Your task to perform on an android device: Clear all items from cart on walmart.com. Search for usb-c on walmart.com, select the first entry, add it to the cart, then select checkout. Image 0: 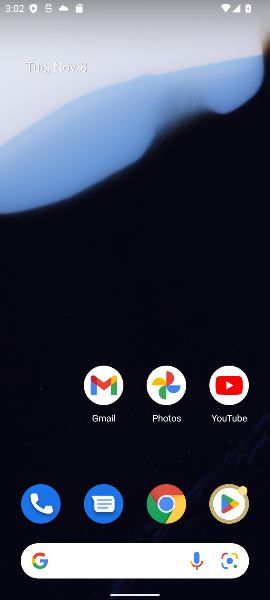
Step 0: drag from (137, 463) to (169, 68)
Your task to perform on an android device: Clear all items from cart on walmart.com. Search for usb-c on walmart.com, select the first entry, add it to the cart, then select checkout. Image 1: 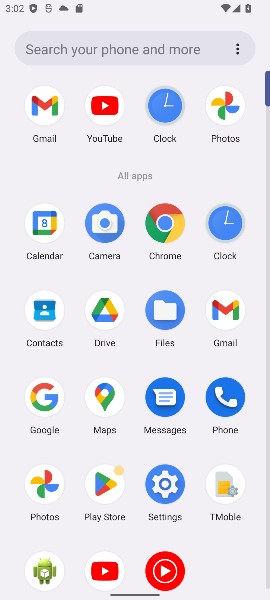
Step 1: click (171, 223)
Your task to perform on an android device: Clear all items from cart on walmart.com. Search for usb-c on walmart.com, select the first entry, add it to the cart, then select checkout. Image 2: 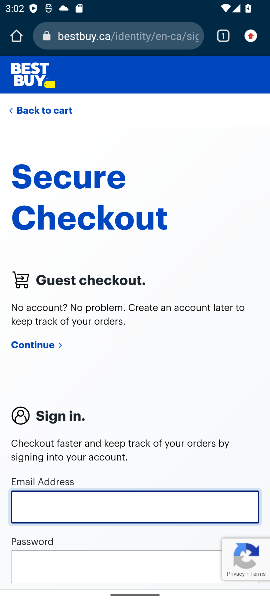
Step 2: click (111, 38)
Your task to perform on an android device: Clear all items from cart on walmart.com. Search for usb-c on walmart.com, select the first entry, add it to the cart, then select checkout. Image 3: 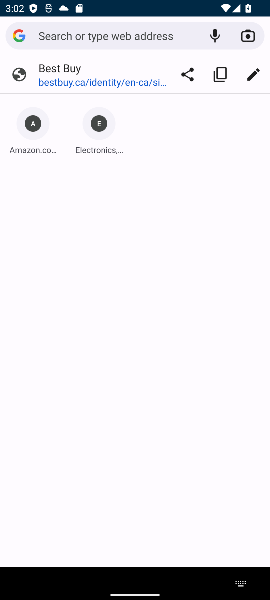
Step 3: type "walmart.com"
Your task to perform on an android device: Clear all items from cart on walmart.com. Search for usb-c on walmart.com, select the first entry, add it to the cart, then select checkout. Image 4: 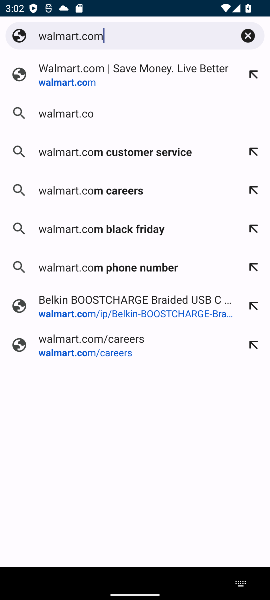
Step 4: press enter
Your task to perform on an android device: Clear all items from cart on walmart.com. Search for usb-c on walmart.com, select the first entry, add it to the cart, then select checkout. Image 5: 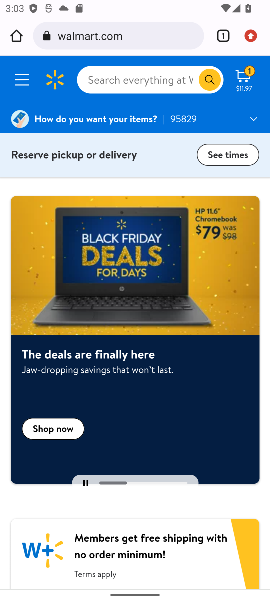
Step 5: click (141, 74)
Your task to perform on an android device: Clear all items from cart on walmart.com. Search for usb-c on walmart.com, select the first entry, add it to the cart, then select checkout. Image 6: 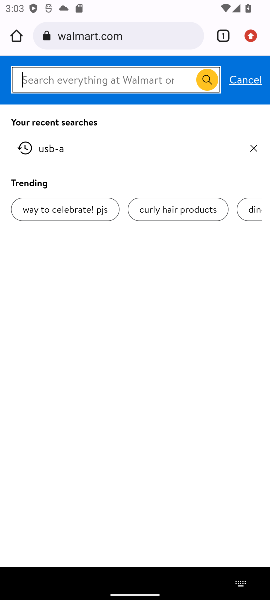
Step 6: press enter
Your task to perform on an android device: Clear all items from cart on walmart.com. Search for usb-c on walmart.com, select the first entry, add it to the cart, then select checkout. Image 7: 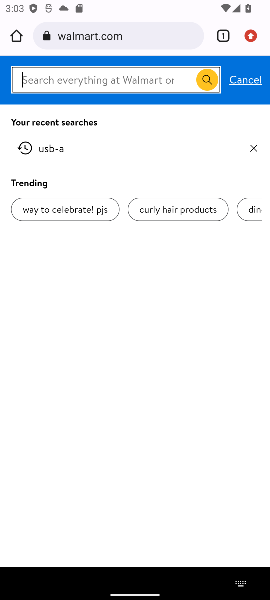
Step 7: type "usb-c "
Your task to perform on an android device: Clear all items from cart on walmart.com. Search for usb-c on walmart.com, select the first entry, add it to the cart, then select checkout. Image 8: 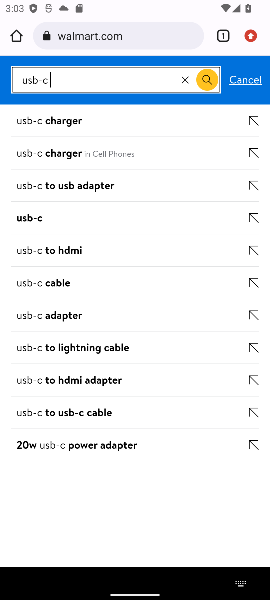
Step 8: press enter
Your task to perform on an android device: Clear all items from cart on walmart.com. Search for usb-c on walmart.com, select the first entry, add it to the cart, then select checkout. Image 9: 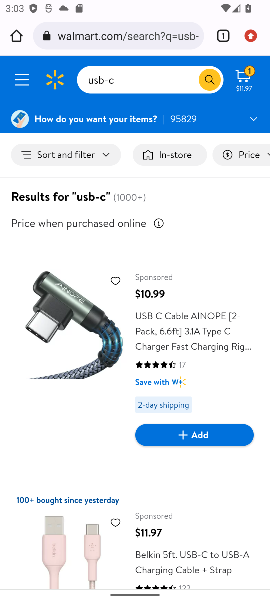
Step 9: click (206, 435)
Your task to perform on an android device: Clear all items from cart on walmart.com. Search for usb-c on walmart.com, select the first entry, add it to the cart, then select checkout. Image 10: 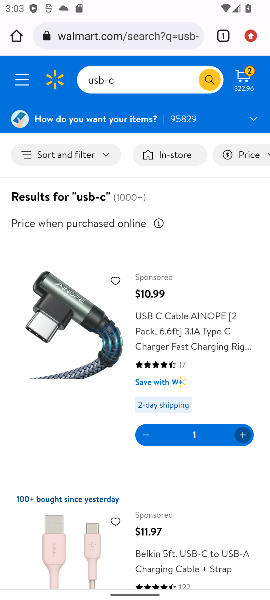
Step 10: click (247, 80)
Your task to perform on an android device: Clear all items from cart on walmart.com. Search for usb-c on walmart.com, select the first entry, add it to the cart, then select checkout. Image 11: 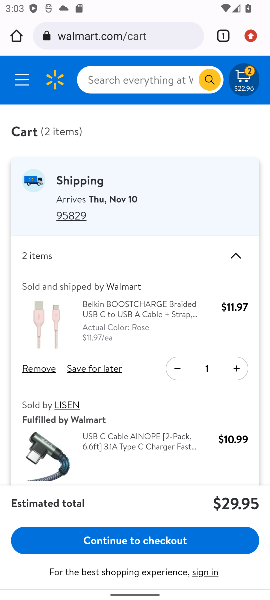
Step 11: click (180, 554)
Your task to perform on an android device: Clear all items from cart on walmart.com. Search for usb-c on walmart.com, select the first entry, add it to the cart, then select checkout. Image 12: 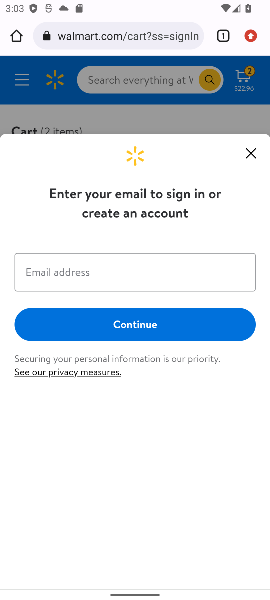
Step 12: task complete